Your task to perform on an android device: toggle data saver in the chrome app Image 0: 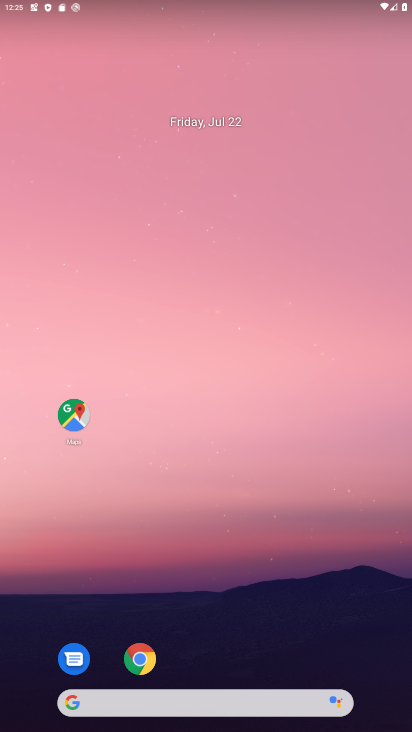
Step 0: click (141, 659)
Your task to perform on an android device: toggle data saver in the chrome app Image 1: 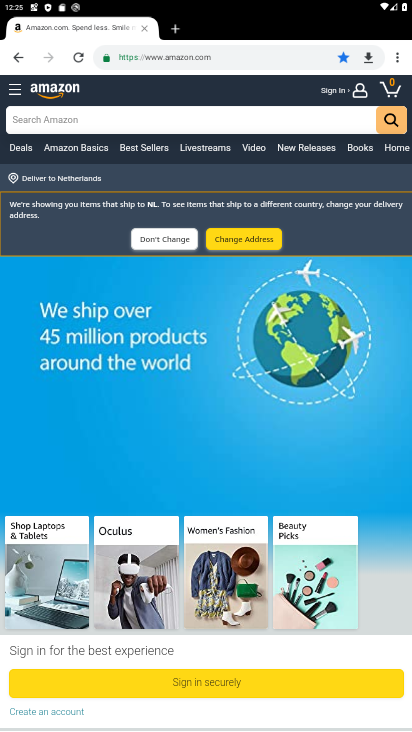
Step 1: click (399, 59)
Your task to perform on an android device: toggle data saver in the chrome app Image 2: 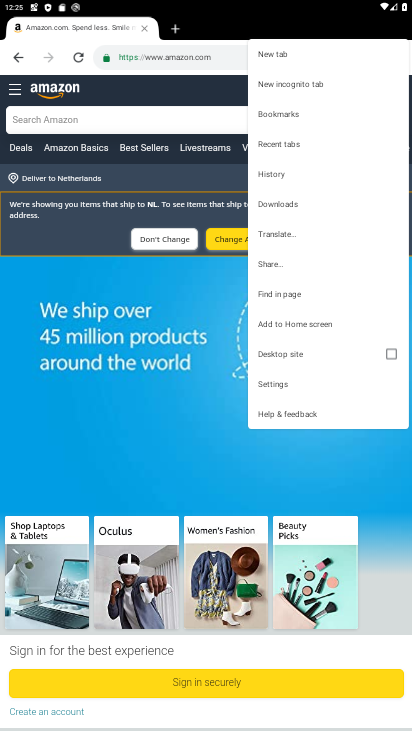
Step 2: click (274, 385)
Your task to perform on an android device: toggle data saver in the chrome app Image 3: 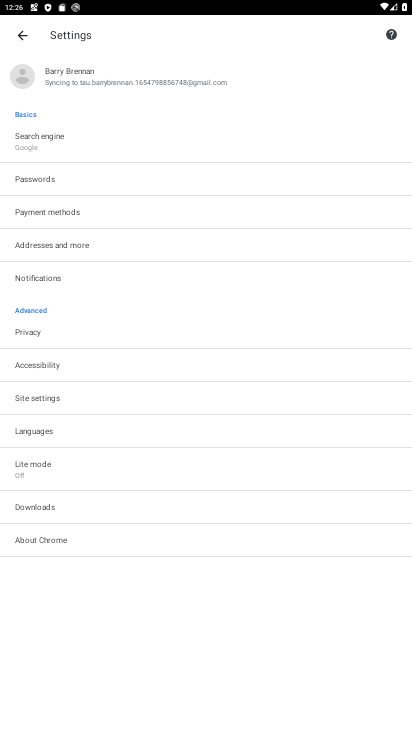
Step 3: click (27, 468)
Your task to perform on an android device: toggle data saver in the chrome app Image 4: 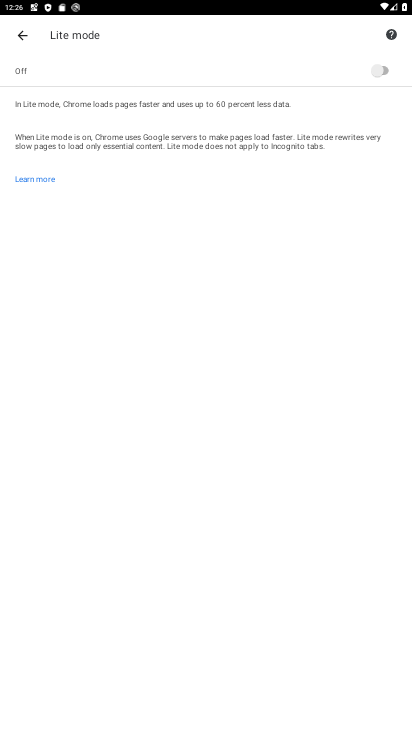
Step 4: click (389, 71)
Your task to perform on an android device: toggle data saver in the chrome app Image 5: 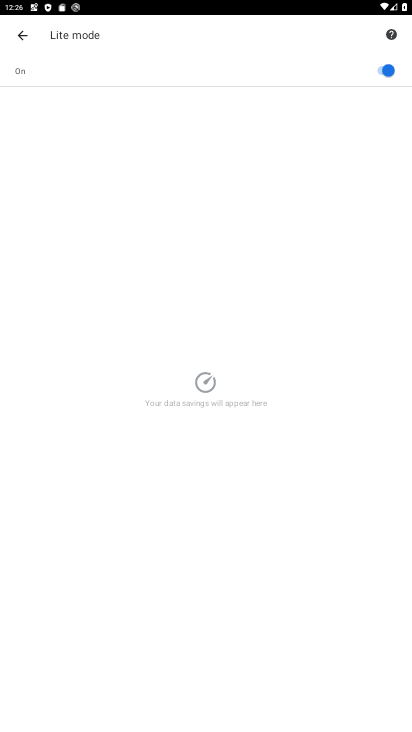
Step 5: task complete